Your task to perform on an android device: toggle show notifications on the lock screen Image 0: 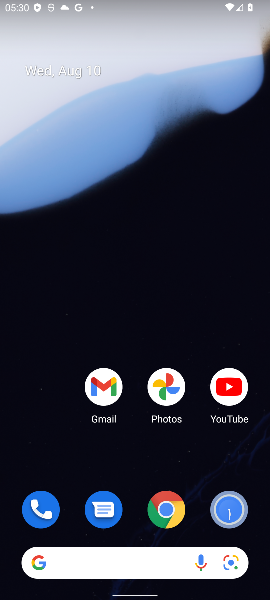
Step 0: drag from (195, 460) to (200, 0)
Your task to perform on an android device: toggle show notifications on the lock screen Image 1: 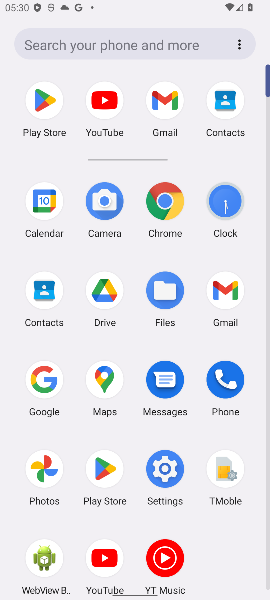
Step 1: click (154, 468)
Your task to perform on an android device: toggle show notifications on the lock screen Image 2: 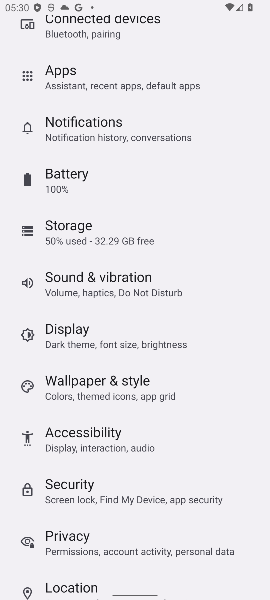
Step 2: drag from (151, 98) to (115, 436)
Your task to perform on an android device: toggle show notifications on the lock screen Image 3: 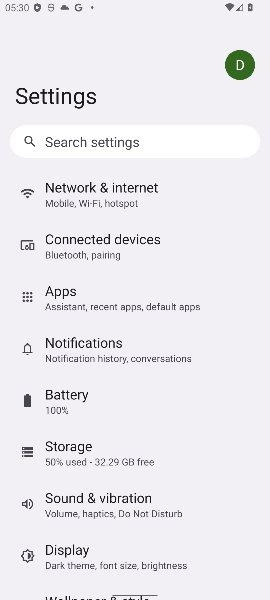
Step 3: click (70, 352)
Your task to perform on an android device: toggle show notifications on the lock screen Image 4: 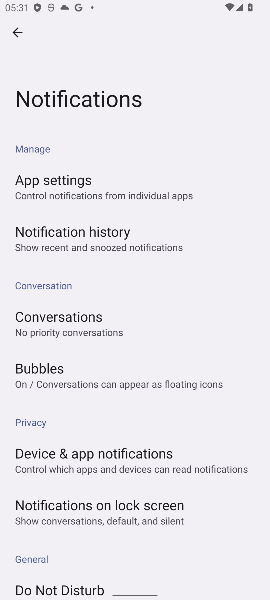
Step 4: drag from (122, 496) to (178, 228)
Your task to perform on an android device: toggle show notifications on the lock screen Image 5: 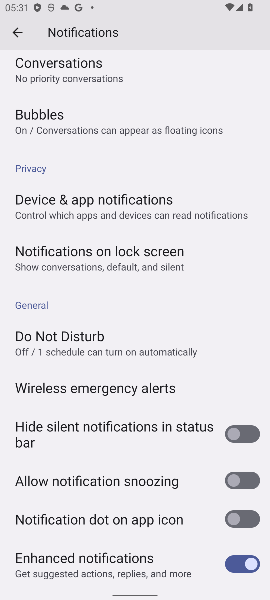
Step 5: drag from (124, 288) to (84, 599)
Your task to perform on an android device: toggle show notifications on the lock screen Image 6: 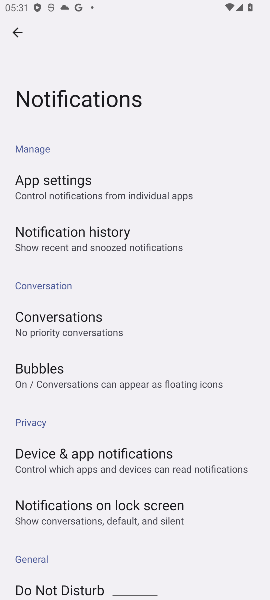
Step 6: drag from (111, 420) to (135, 275)
Your task to perform on an android device: toggle show notifications on the lock screen Image 7: 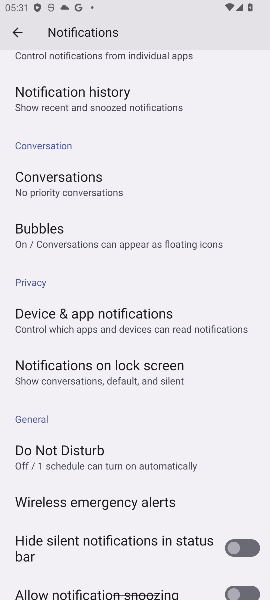
Step 7: click (64, 368)
Your task to perform on an android device: toggle show notifications on the lock screen Image 8: 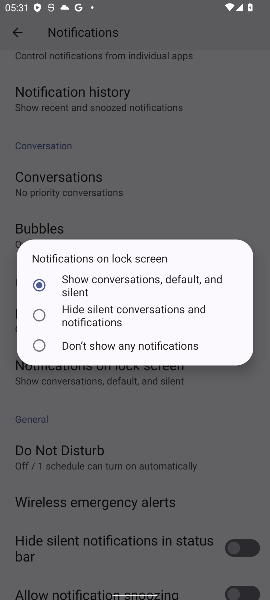
Step 8: click (114, 341)
Your task to perform on an android device: toggle show notifications on the lock screen Image 9: 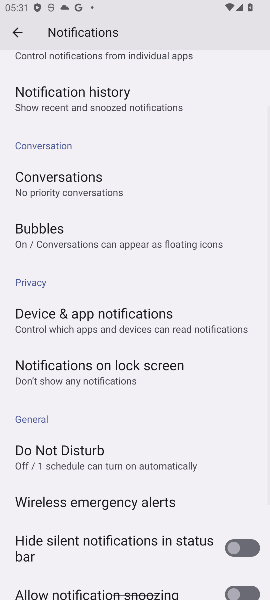
Step 9: task complete